Your task to perform on an android device: see sites visited before in the chrome app Image 0: 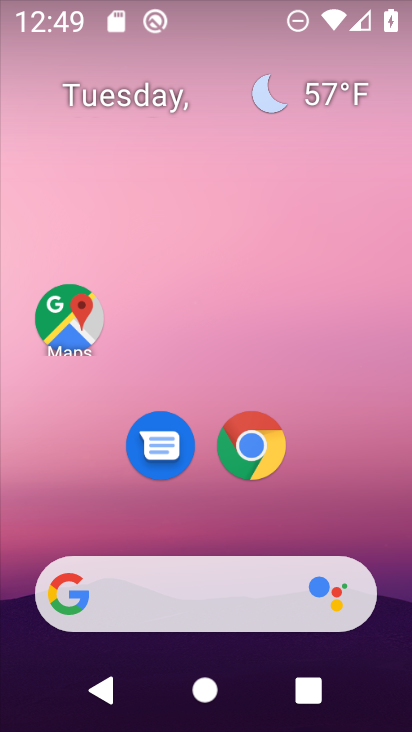
Step 0: drag from (386, 521) to (373, 173)
Your task to perform on an android device: see sites visited before in the chrome app Image 1: 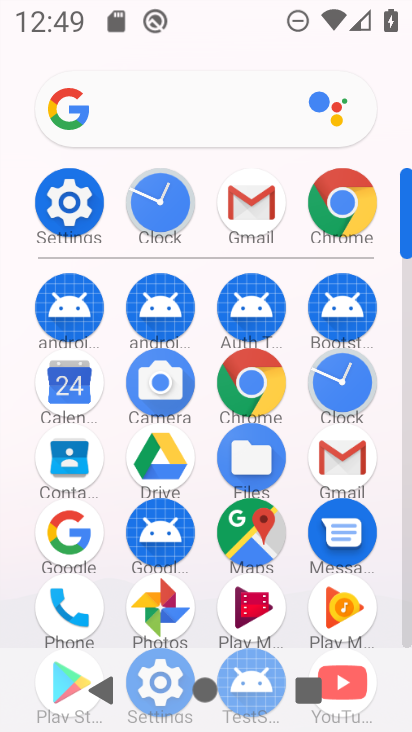
Step 1: click (272, 390)
Your task to perform on an android device: see sites visited before in the chrome app Image 2: 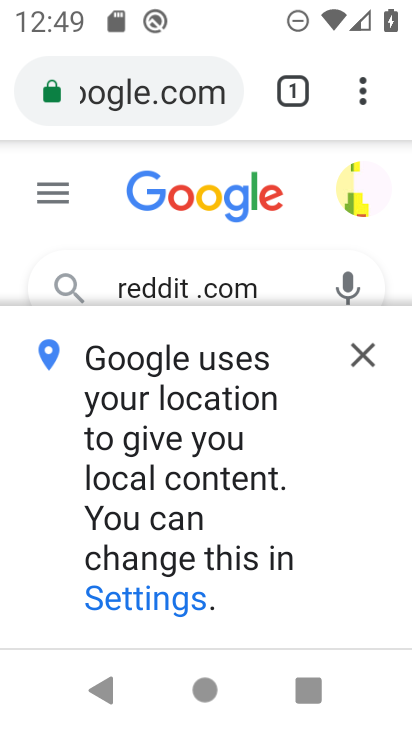
Step 2: click (367, 97)
Your task to perform on an android device: see sites visited before in the chrome app Image 3: 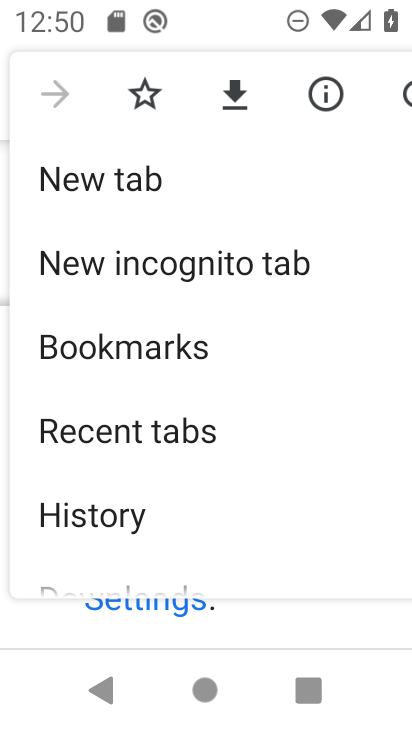
Step 3: drag from (314, 546) to (323, 399)
Your task to perform on an android device: see sites visited before in the chrome app Image 4: 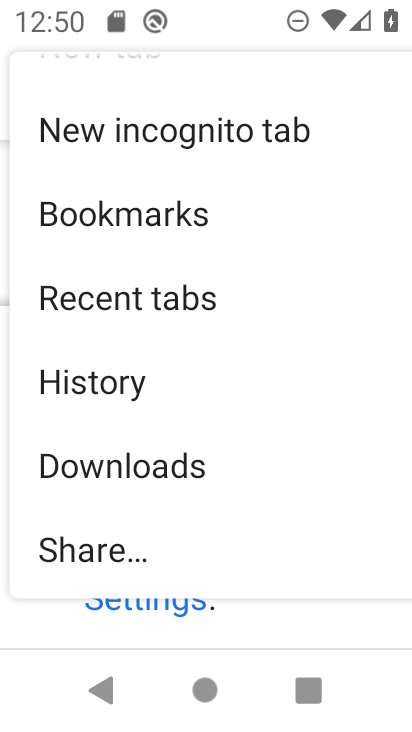
Step 4: drag from (316, 536) to (316, 394)
Your task to perform on an android device: see sites visited before in the chrome app Image 5: 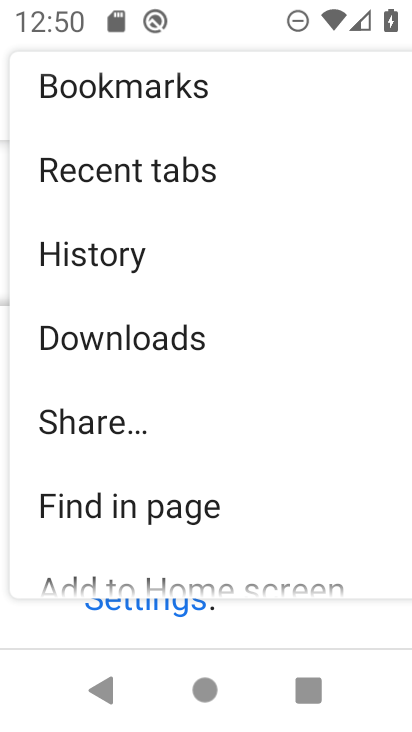
Step 5: drag from (309, 482) to (335, 300)
Your task to perform on an android device: see sites visited before in the chrome app Image 6: 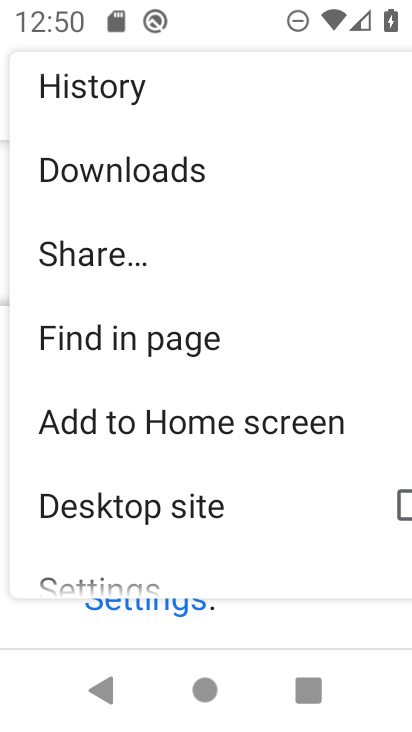
Step 6: drag from (329, 518) to (339, 357)
Your task to perform on an android device: see sites visited before in the chrome app Image 7: 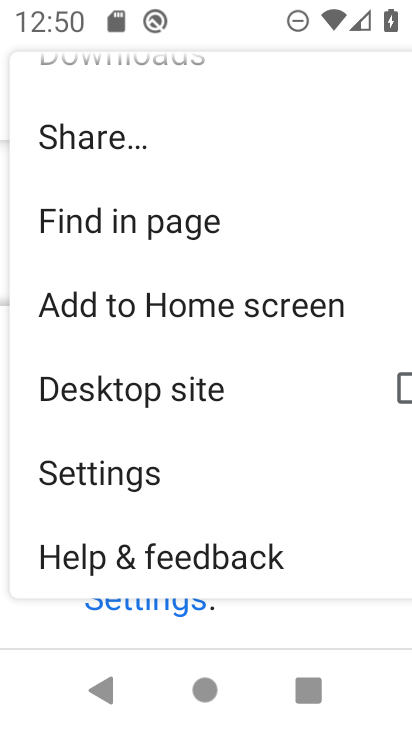
Step 7: drag from (269, 177) to (262, 393)
Your task to perform on an android device: see sites visited before in the chrome app Image 8: 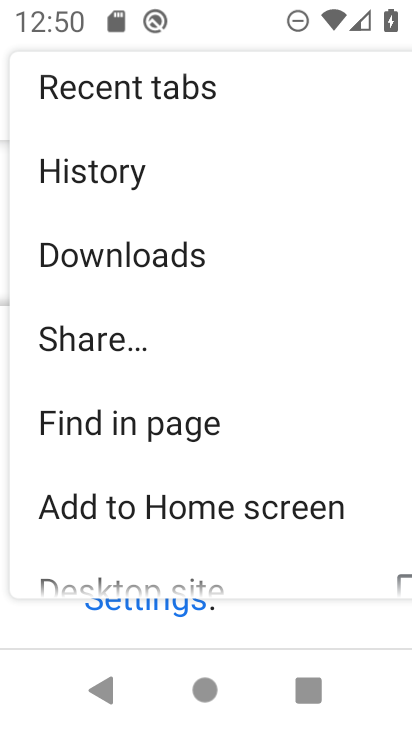
Step 8: click (114, 187)
Your task to perform on an android device: see sites visited before in the chrome app Image 9: 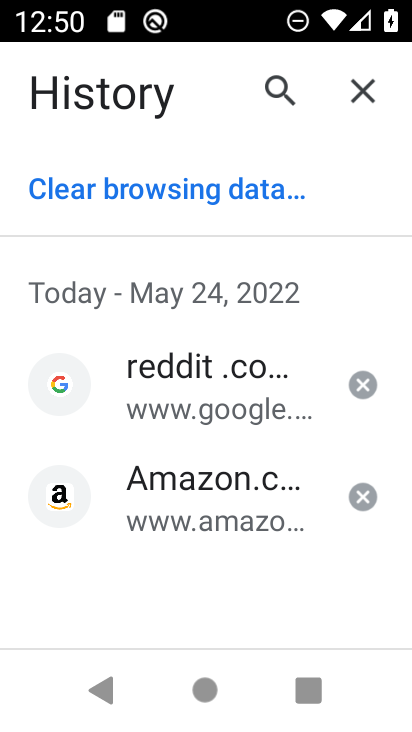
Step 9: task complete